Your task to perform on an android device: clear all cookies in the chrome app Image 0: 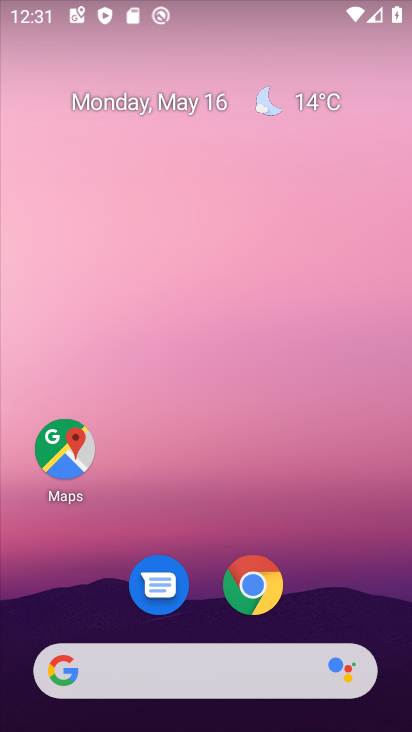
Step 0: click (273, 588)
Your task to perform on an android device: clear all cookies in the chrome app Image 1: 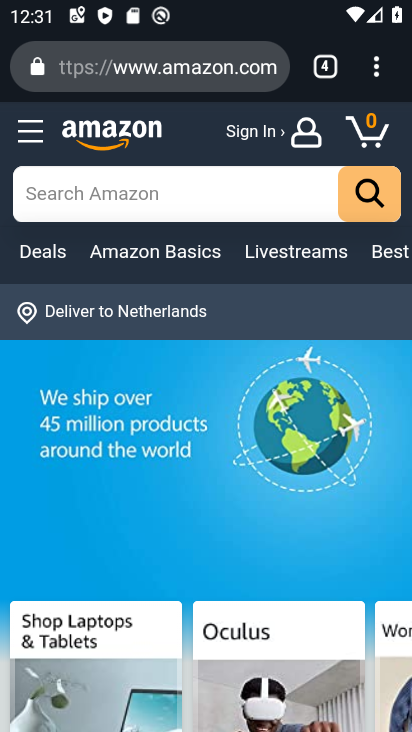
Step 1: click (373, 70)
Your task to perform on an android device: clear all cookies in the chrome app Image 2: 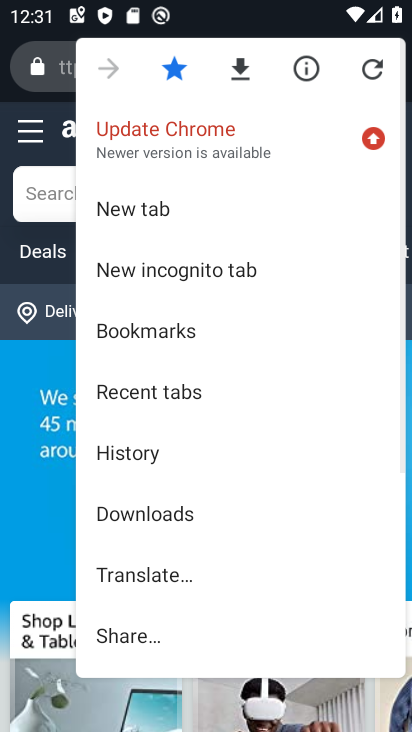
Step 2: drag from (283, 484) to (301, 165)
Your task to perform on an android device: clear all cookies in the chrome app Image 3: 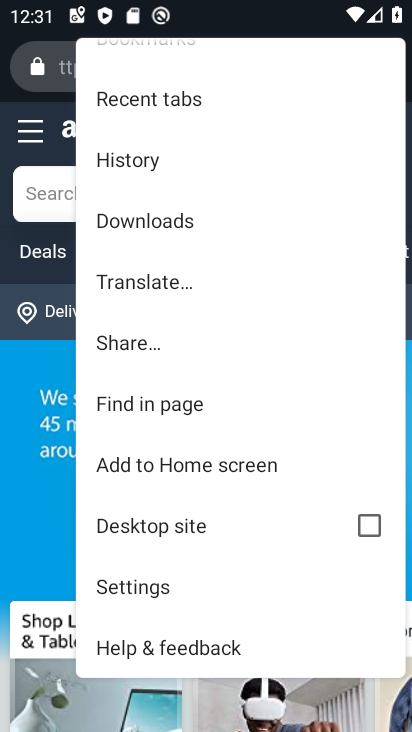
Step 3: click (207, 595)
Your task to perform on an android device: clear all cookies in the chrome app Image 4: 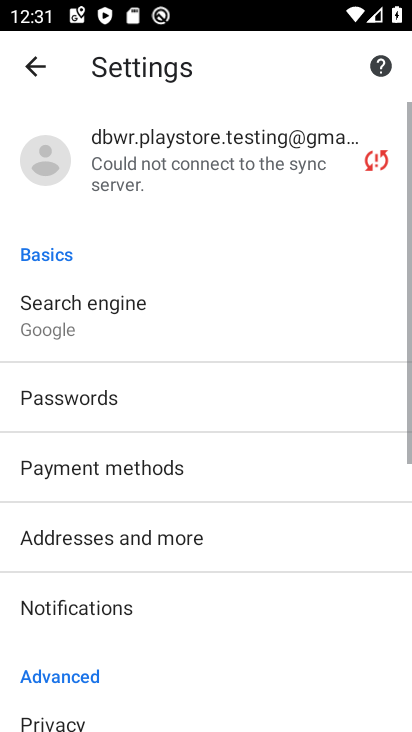
Step 4: drag from (203, 641) to (212, 517)
Your task to perform on an android device: clear all cookies in the chrome app Image 5: 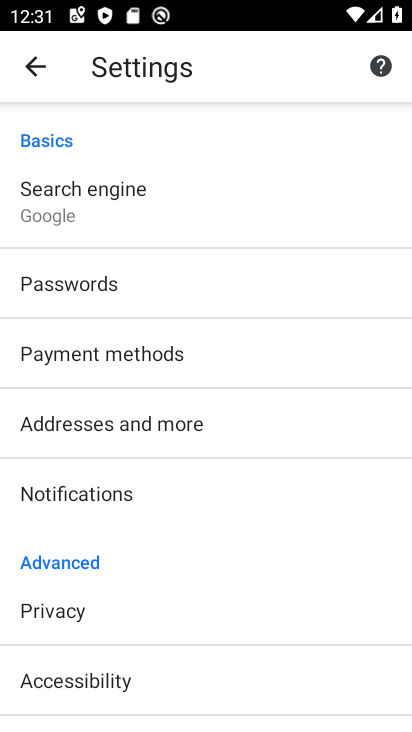
Step 5: click (177, 624)
Your task to perform on an android device: clear all cookies in the chrome app Image 6: 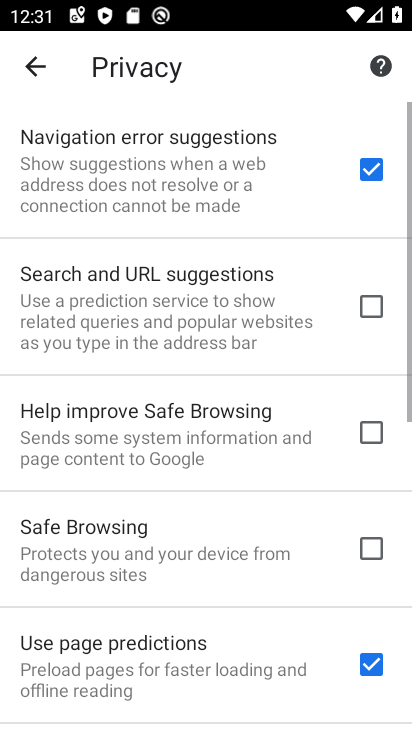
Step 6: drag from (198, 627) to (192, 146)
Your task to perform on an android device: clear all cookies in the chrome app Image 7: 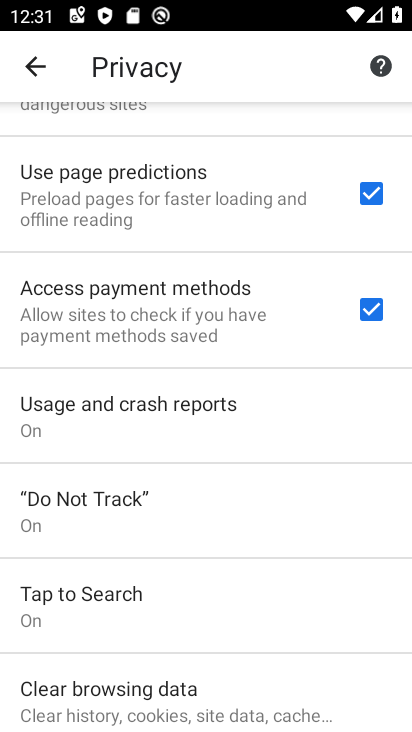
Step 7: click (196, 691)
Your task to perform on an android device: clear all cookies in the chrome app Image 8: 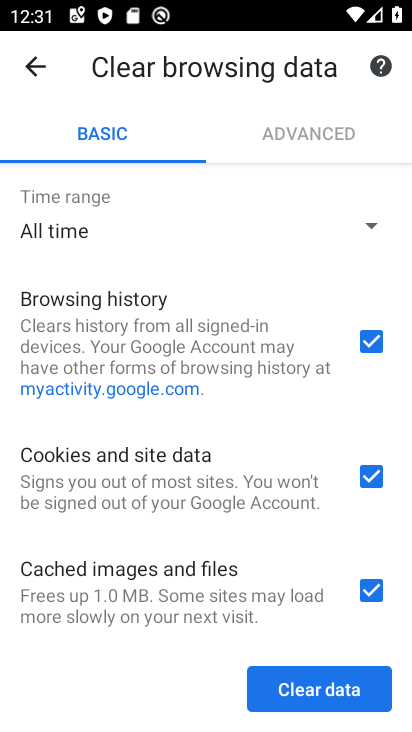
Step 8: click (373, 596)
Your task to perform on an android device: clear all cookies in the chrome app Image 9: 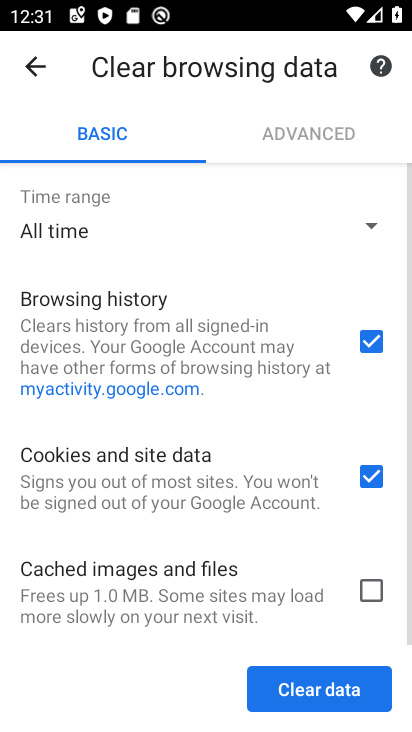
Step 9: click (372, 330)
Your task to perform on an android device: clear all cookies in the chrome app Image 10: 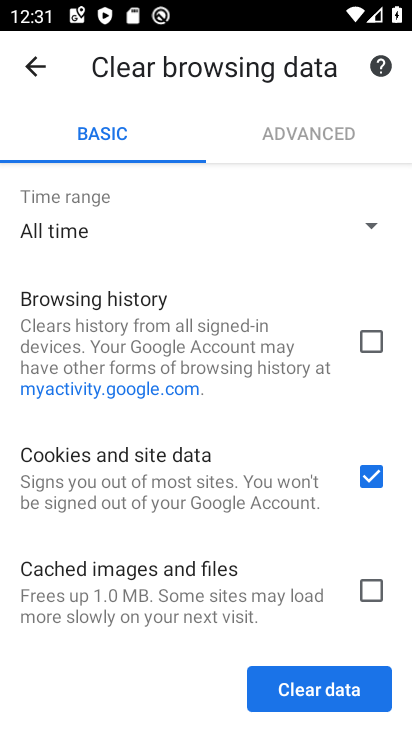
Step 10: click (351, 679)
Your task to perform on an android device: clear all cookies in the chrome app Image 11: 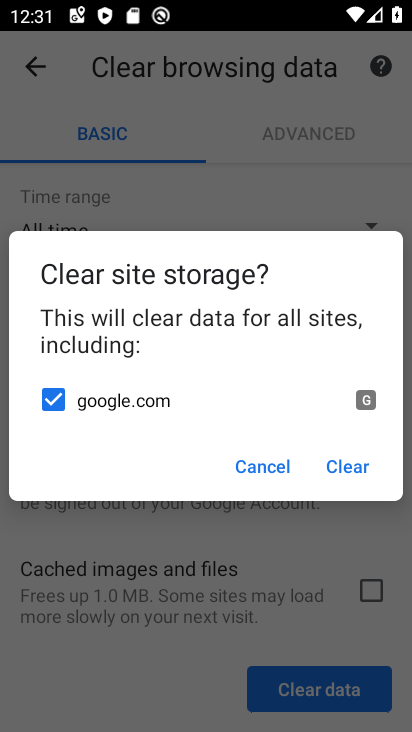
Step 11: click (364, 464)
Your task to perform on an android device: clear all cookies in the chrome app Image 12: 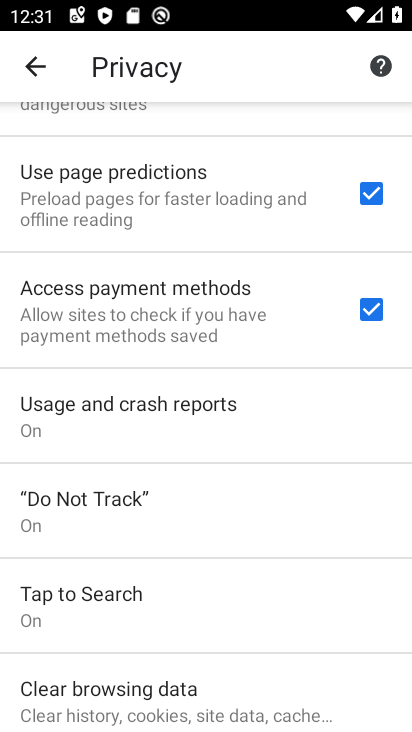
Step 12: task complete